Your task to perform on an android device: stop showing notifications on the lock screen Image 0: 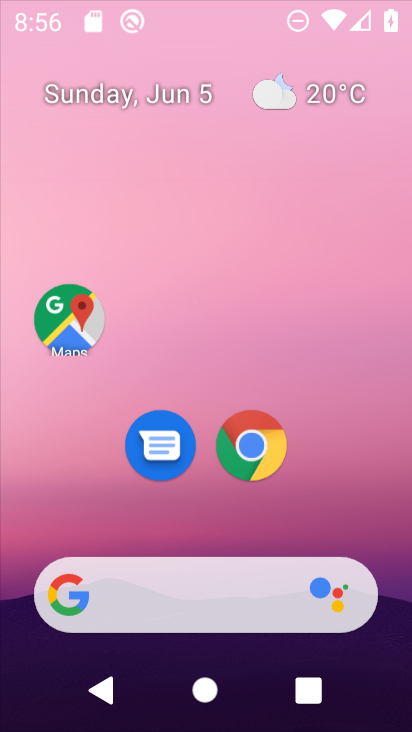
Step 0: click (339, 52)
Your task to perform on an android device: stop showing notifications on the lock screen Image 1: 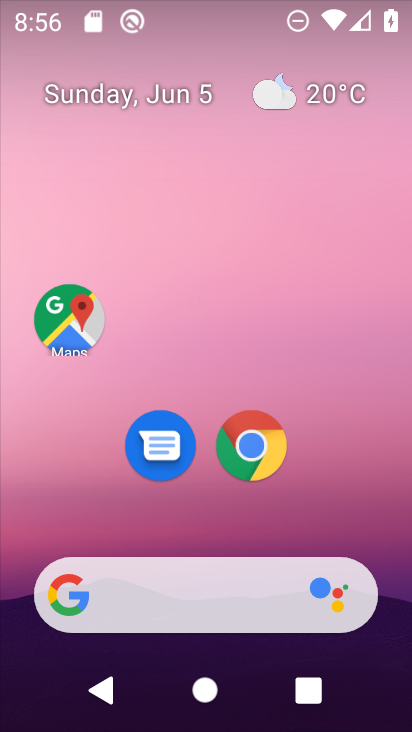
Step 1: press home button
Your task to perform on an android device: stop showing notifications on the lock screen Image 2: 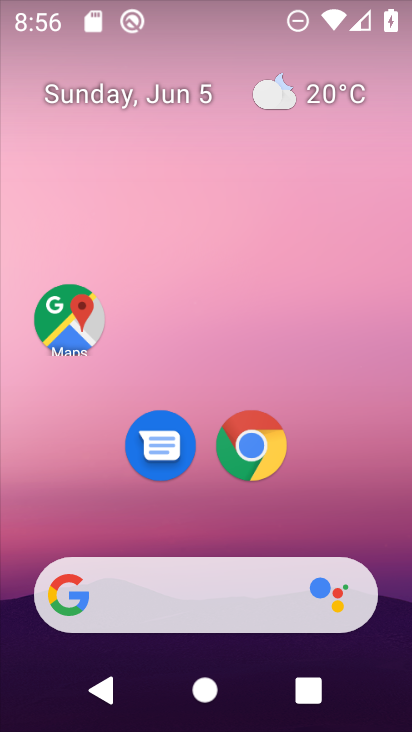
Step 2: drag from (236, 607) to (263, 4)
Your task to perform on an android device: stop showing notifications on the lock screen Image 3: 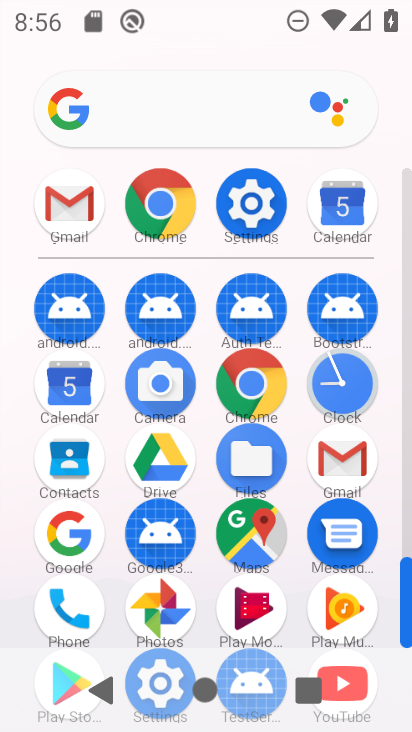
Step 3: click (258, 201)
Your task to perform on an android device: stop showing notifications on the lock screen Image 4: 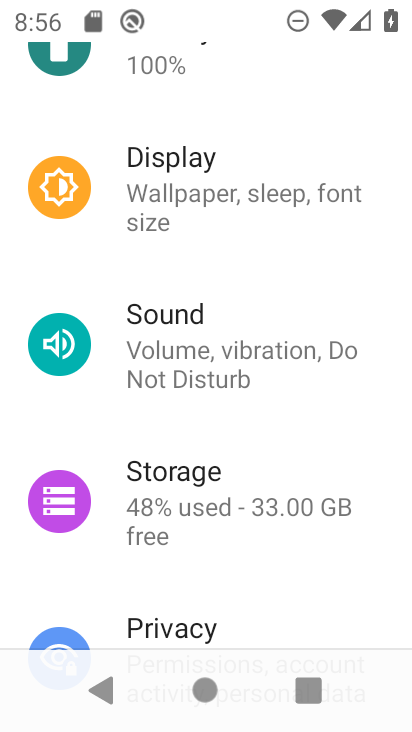
Step 4: drag from (201, 159) to (227, 610)
Your task to perform on an android device: stop showing notifications on the lock screen Image 5: 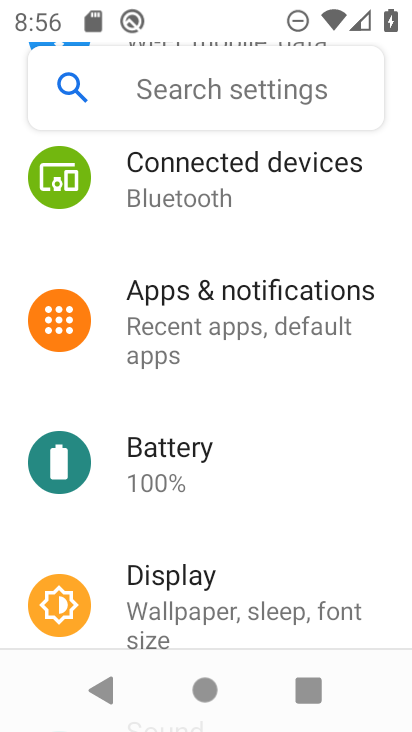
Step 5: click (234, 332)
Your task to perform on an android device: stop showing notifications on the lock screen Image 6: 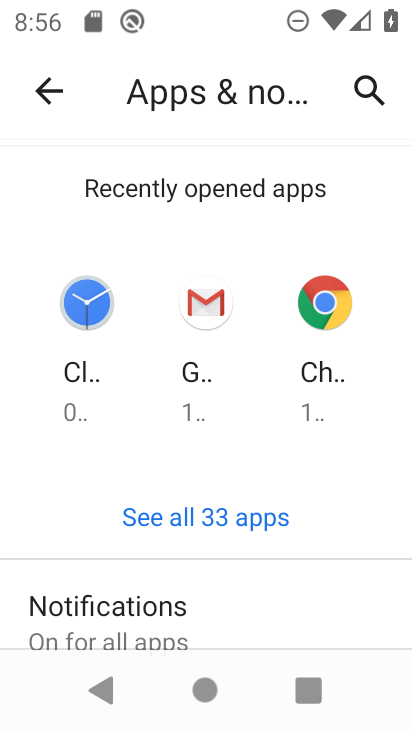
Step 6: drag from (164, 634) to (156, 125)
Your task to perform on an android device: stop showing notifications on the lock screen Image 7: 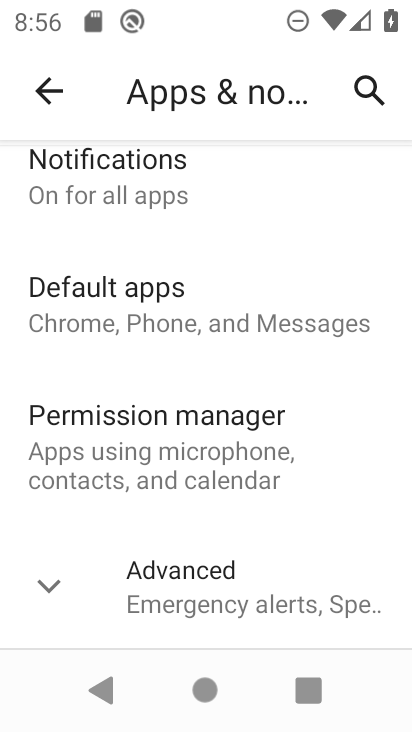
Step 7: click (191, 594)
Your task to perform on an android device: stop showing notifications on the lock screen Image 8: 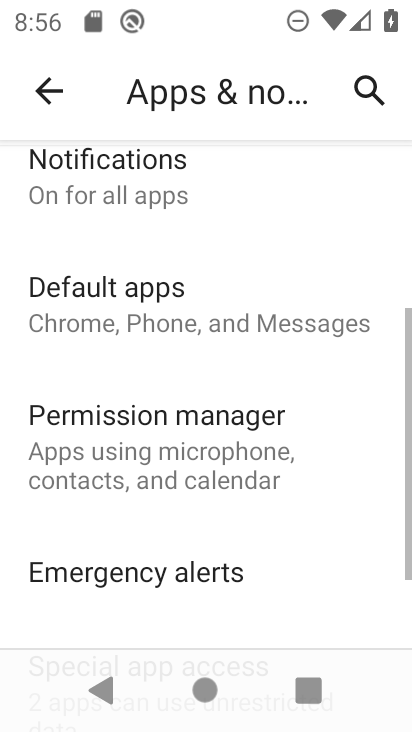
Step 8: drag from (230, 654) to (208, 725)
Your task to perform on an android device: stop showing notifications on the lock screen Image 9: 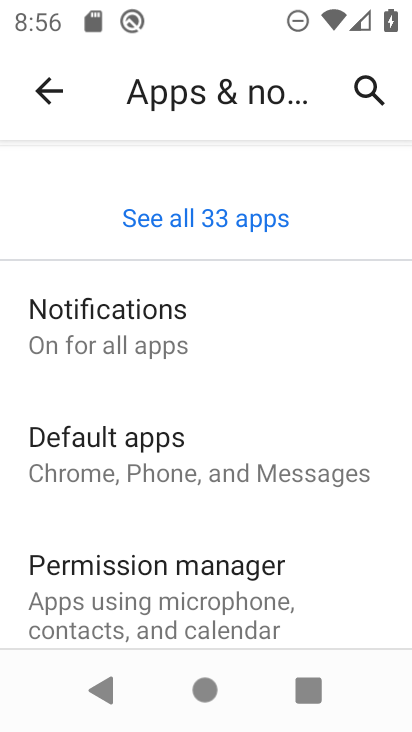
Step 9: click (162, 320)
Your task to perform on an android device: stop showing notifications on the lock screen Image 10: 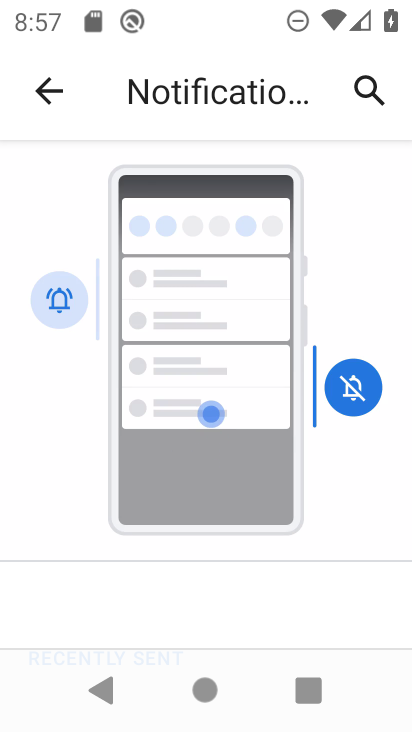
Step 10: drag from (228, 603) to (281, 110)
Your task to perform on an android device: stop showing notifications on the lock screen Image 11: 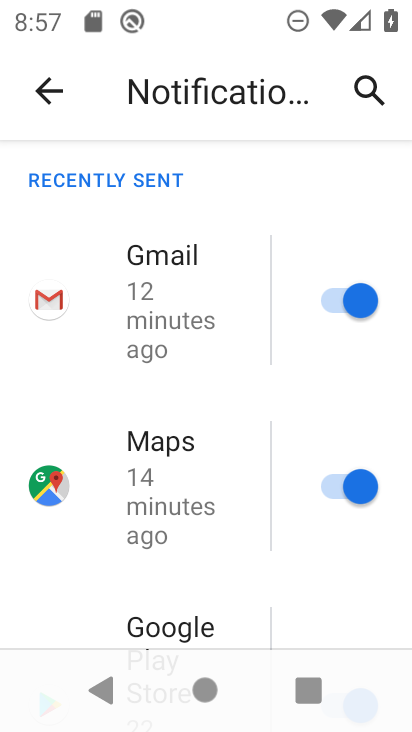
Step 11: drag from (201, 554) to (237, 114)
Your task to perform on an android device: stop showing notifications on the lock screen Image 12: 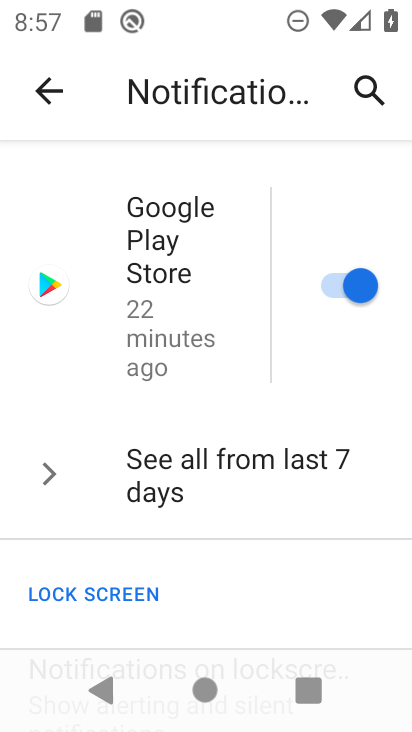
Step 12: drag from (222, 589) to (269, 111)
Your task to perform on an android device: stop showing notifications on the lock screen Image 13: 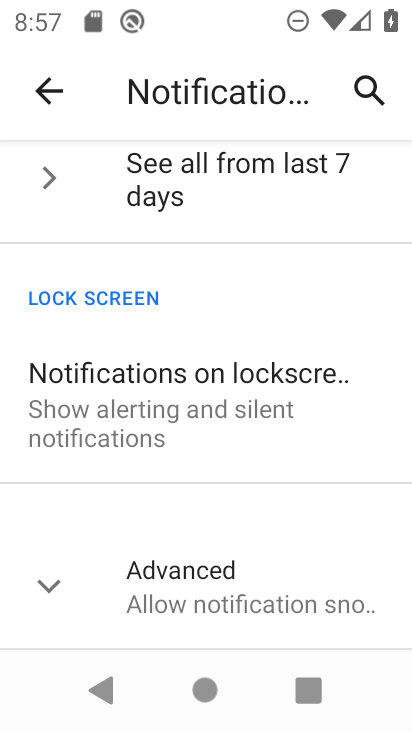
Step 13: click (260, 368)
Your task to perform on an android device: stop showing notifications on the lock screen Image 14: 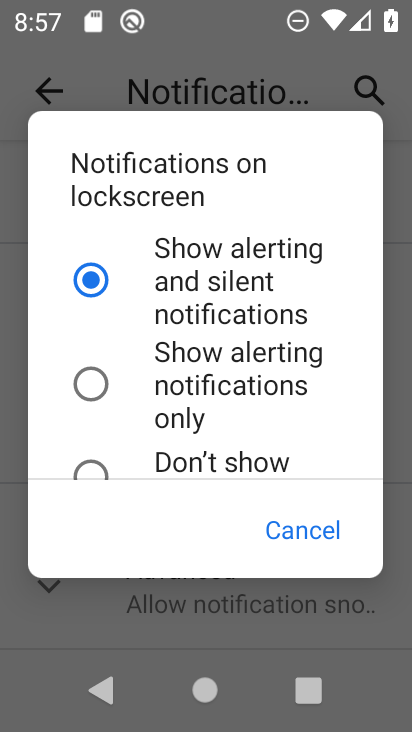
Step 14: click (101, 472)
Your task to perform on an android device: stop showing notifications on the lock screen Image 15: 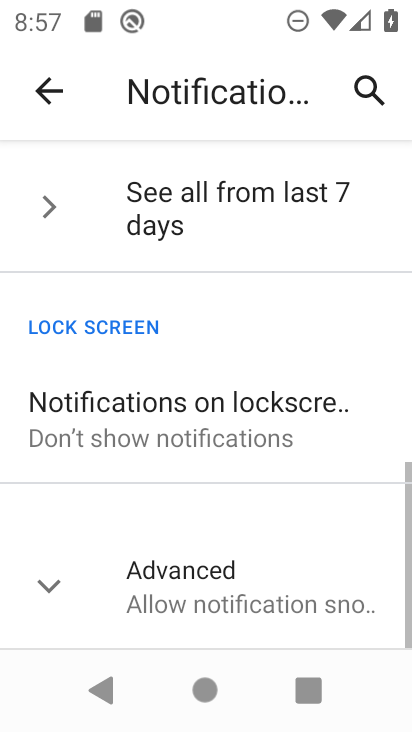
Step 15: task complete